Your task to perform on an android device: turn off location history Image 0: 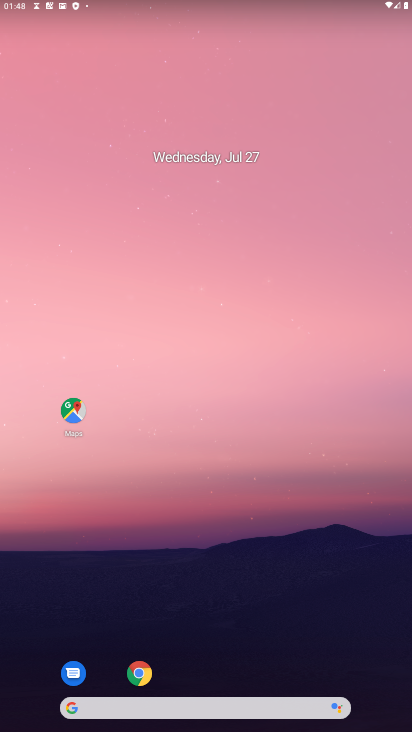
Step 0: drag from (157, 657) to (168, 137)
Your task to perform on an android device: turn off location history Image 1: 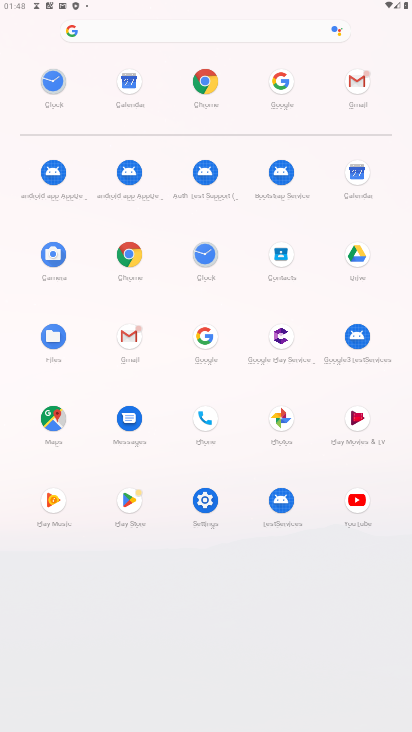
Step 1: click (204, 505)
Your task to perform on an android device: turn off location history Image 2: 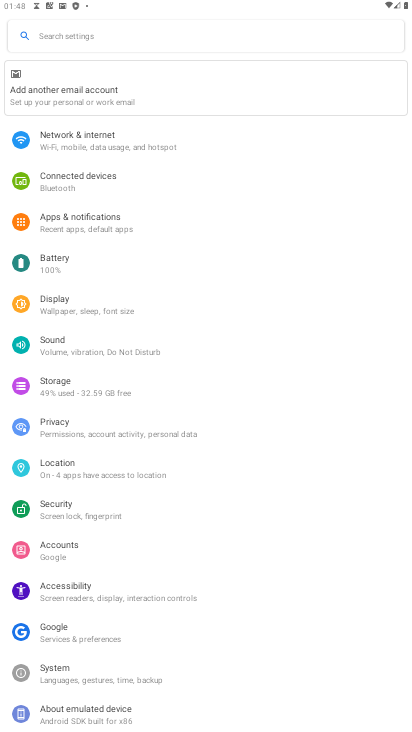
Step 2: click (57, 471)
Your task to perform on an android device: turn off location history Image 3: 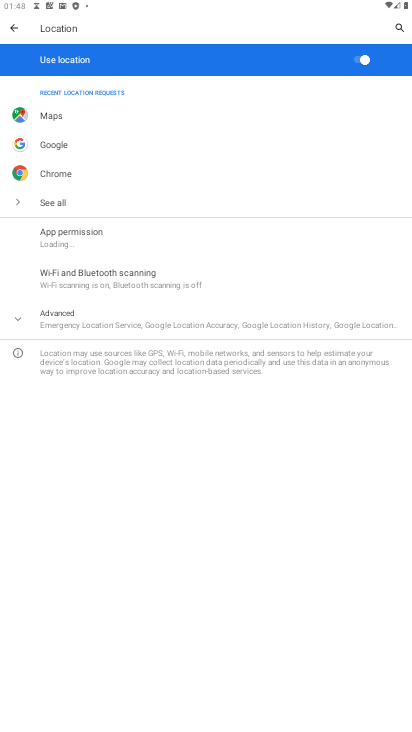
Step 3: click (93, 326)
Your task to perform on an android device: turn off location history Image 4: 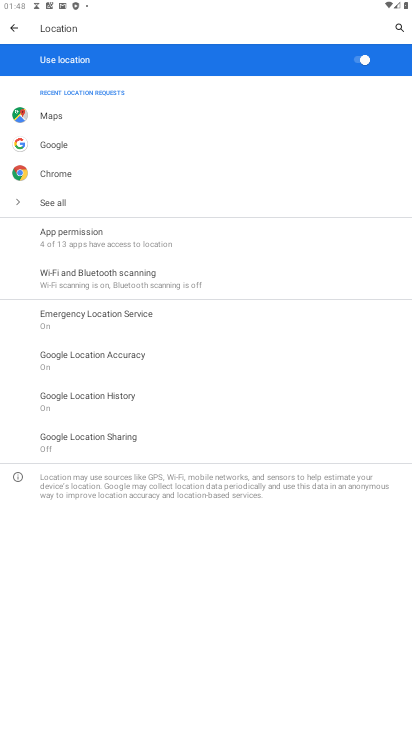
Step 4: click (109, 400)
Your task to perform on an android device: turn off location history Image 5: 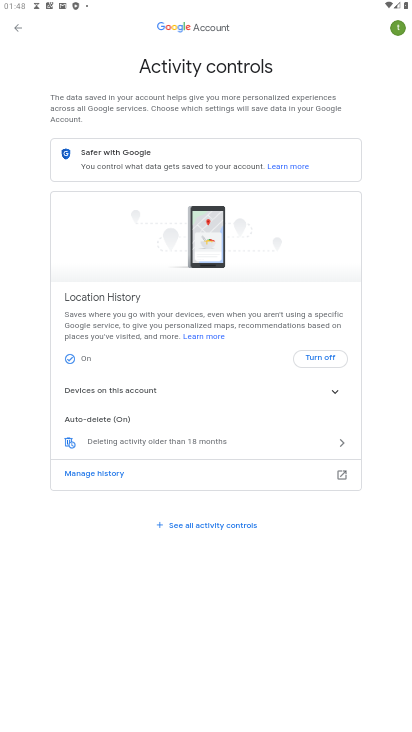
Step 5: click (332, 364)
Your task to perform on an android device: turn off location history Image 6: 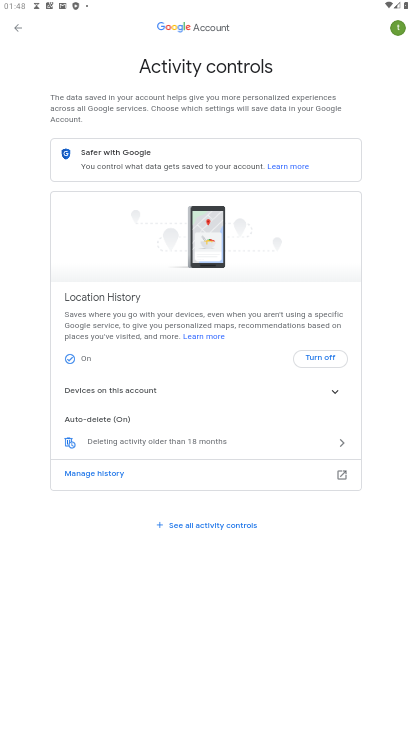
Step 6: click (328, 358)
Your task to perform on an android device: turn off location history Image 7: 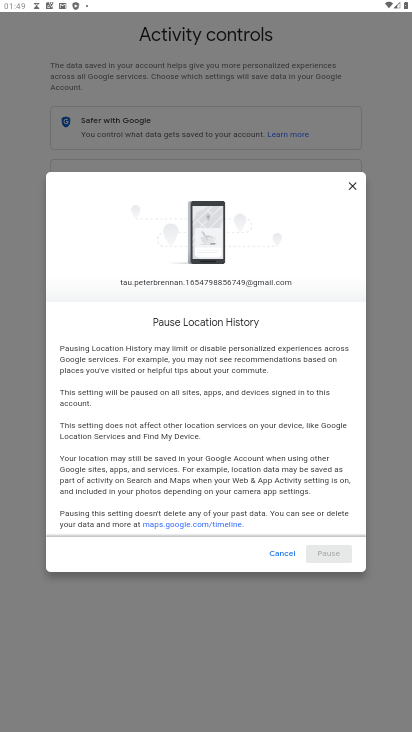
Step 7: click (273, 552)
Your task to perform on an android device: turn off location history Image 8: 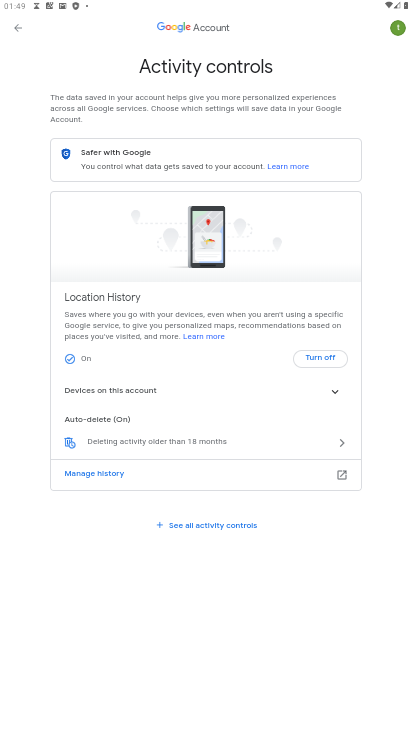
Step 8: task complete